Your task to perform on an android device: check storage Image 0: 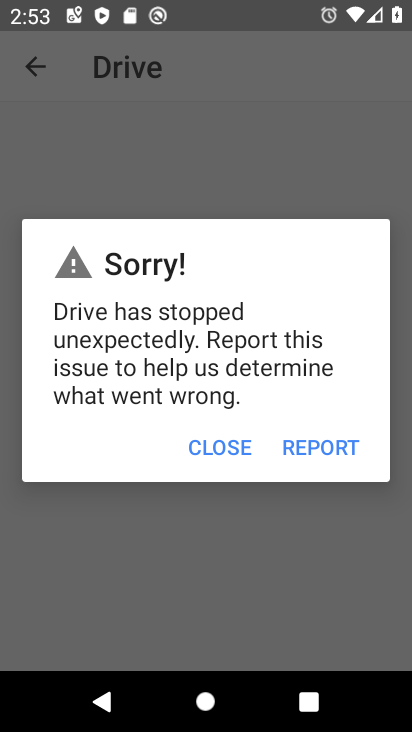
Step 0: press home button
Your task to perform on an android device: check storage Image 1: 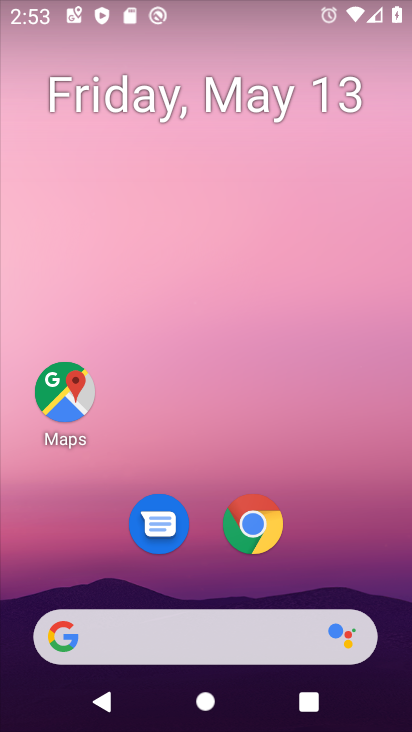
Step 1: drag from (307, 562) to (368, 33)
Your task to perform on an android device: check storage Image 2: 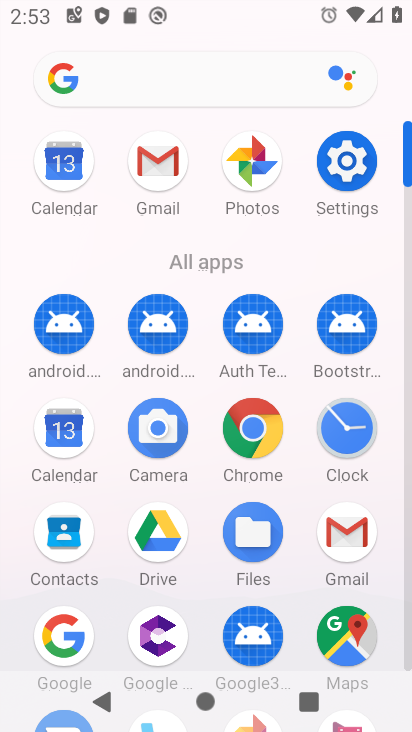
Step 2: click (351, 159)
Your task to perform on an android device: check storage Image 3: 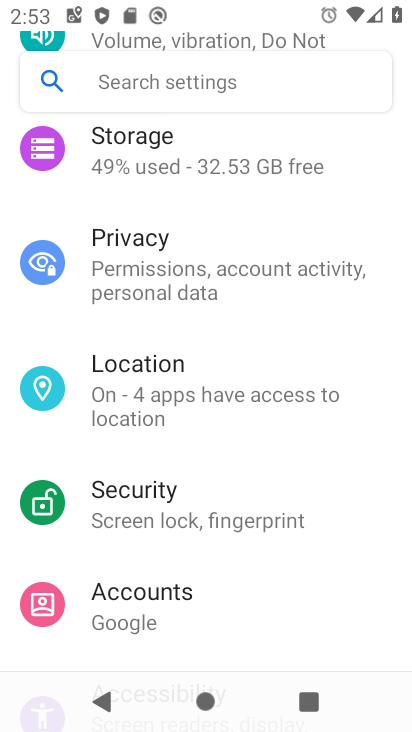
Step 3: click (242, 144)
Your task to perform on an android device: check storage Image 4: 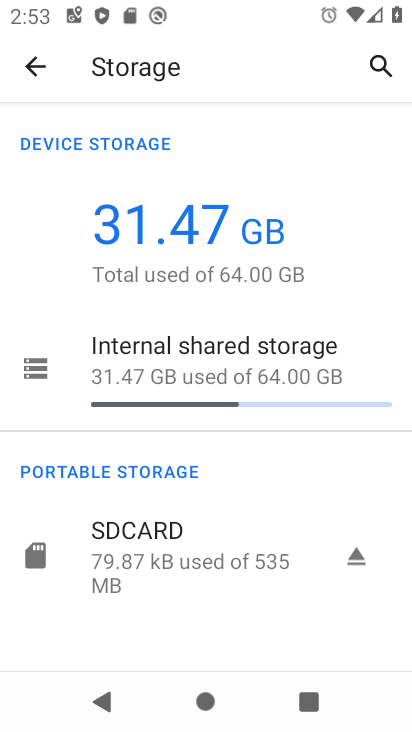
Step 4: task complete